Your task to perform on an android device: set the stopwatch Image 0: 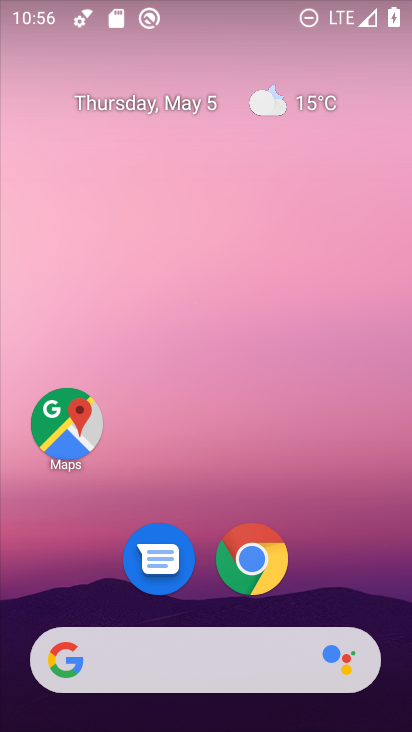
Step 0: drag from (377, 624) to (287, 62)
Your task to perform on an android device: set the stopwatch Image 1: 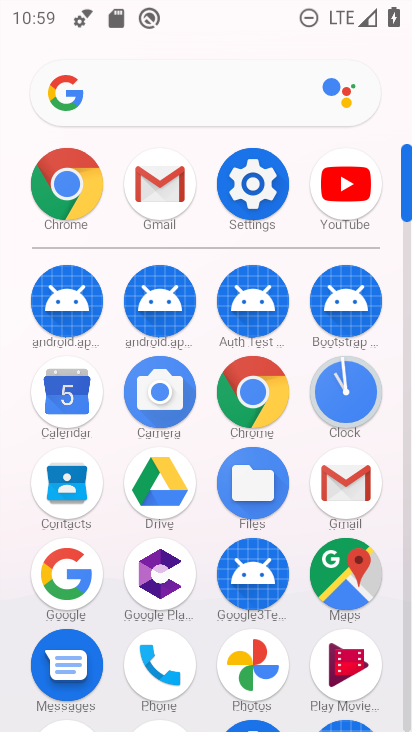
Step 1: click (346, 383)
Your task to perform on an android device: set the stopwatch Image 2: 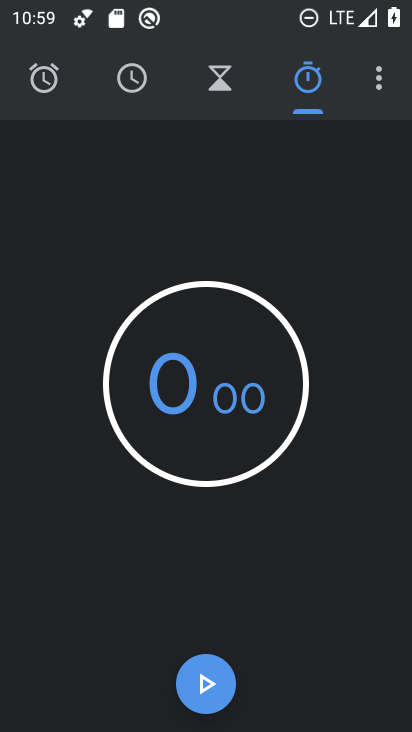
Step 2: task complete